Your task to perform on an android device: Open the stopwatch Image 0: 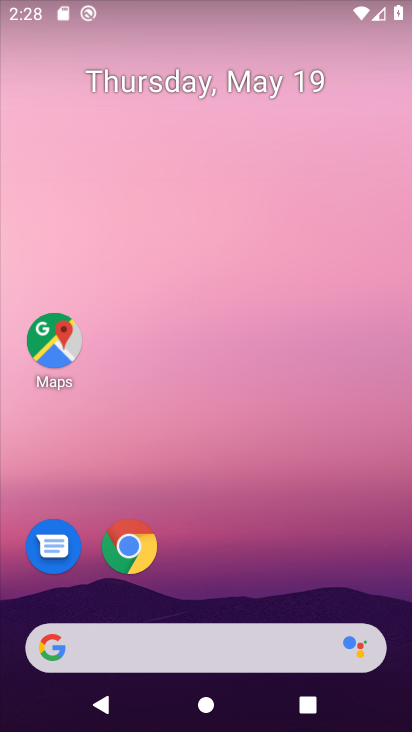
Step 0: drag from (232, 597) to (298, 34)
Your task to perform on an android device: Open the stopwatch Image 1: 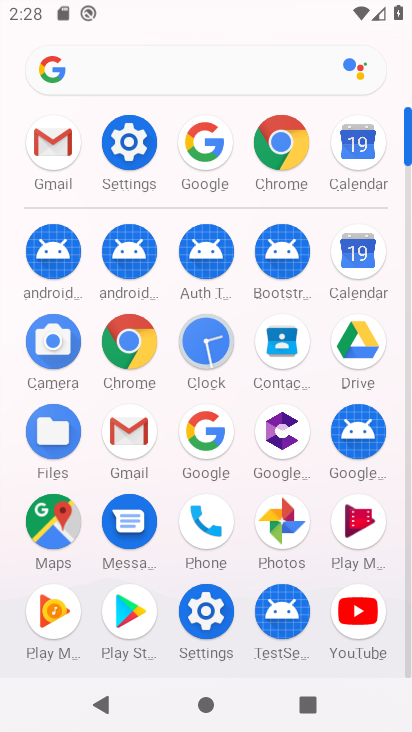
Step 1: click (203, 335)
Your task to perform on an android device: Open the stopwatch Image 2: 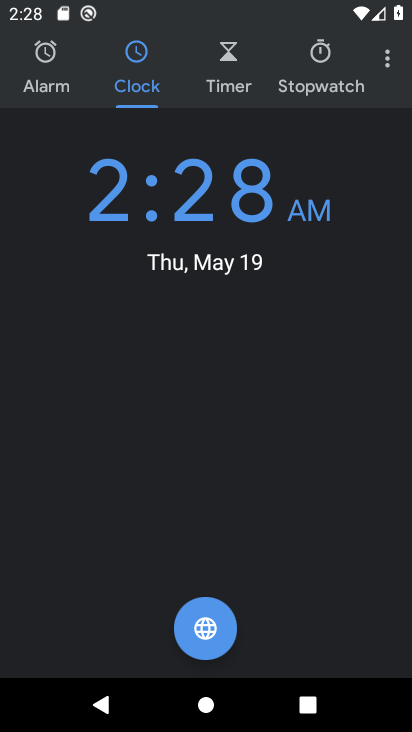
Step 2: click (319, 54)
Your task to perform on an android device: Open the stopwatch Image 3: 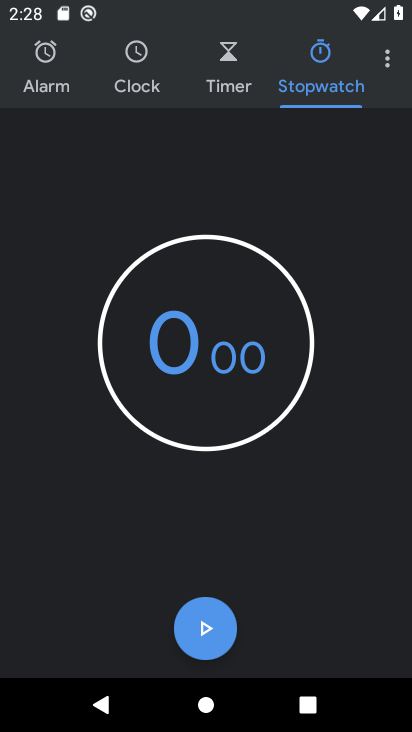
Step 3: click (208, 620)
Your task to perform on an android device: Open the stopwatch Image 4: 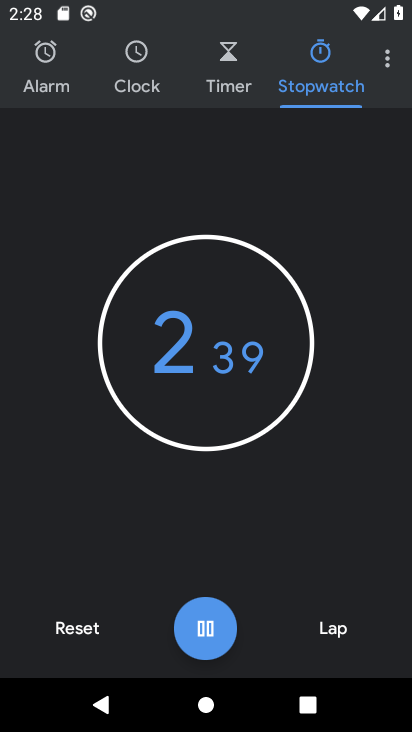
Step 4: task complete